Your task to perform on an android device: turn off improve location accuracy Image 0: 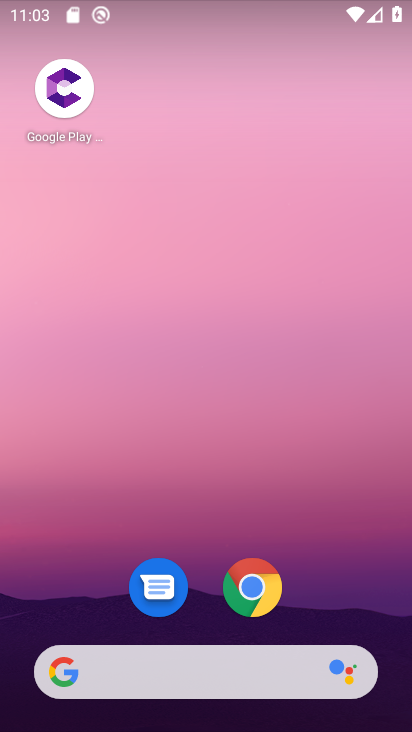
Step 0: drag from (209, 592) to (209, 177)
Your task to perform on an android device: turn off improve location accuracy Image 1: 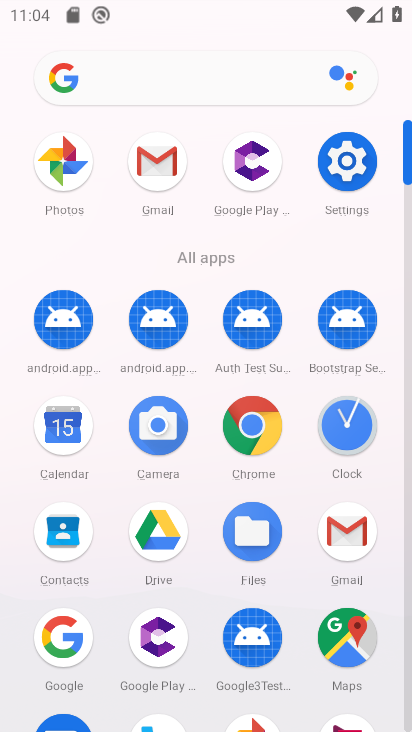
Step 1: click (339, 182)
Your task to perform on an android device: turn off improve location accuracy Image 2: 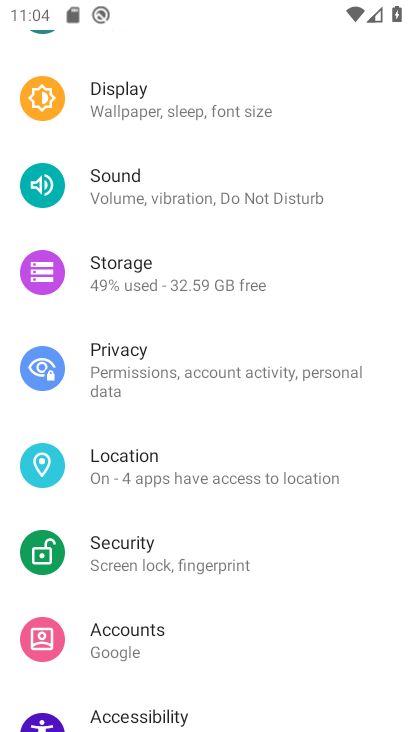
Step 2: drag from (188, 622) to (240, 333)
Your task to perform on an android device: turn off improve location accuracy Image 3: 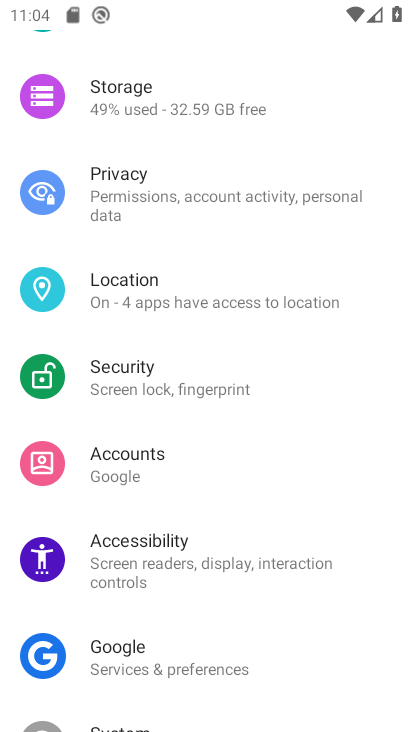
Step 3: drag from (209, 576) to (249, 293)
Your task to perform on an android device: turn off improve location accuracy Image 4: 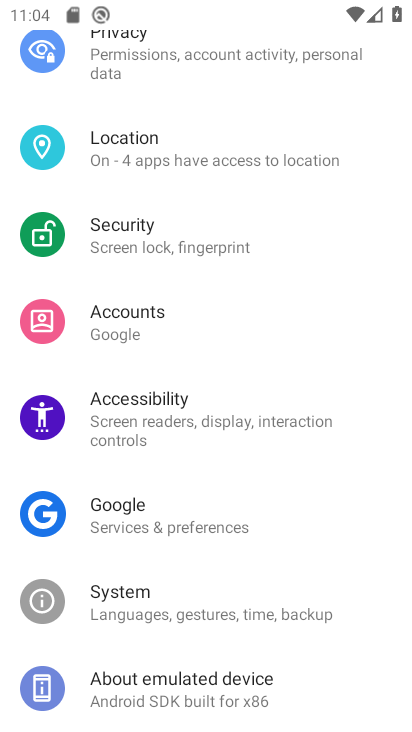
Step 4: drag from (212, 547) to (233, 247)
Your task to perform on an android device: turn off improve location accuracy Image 5: 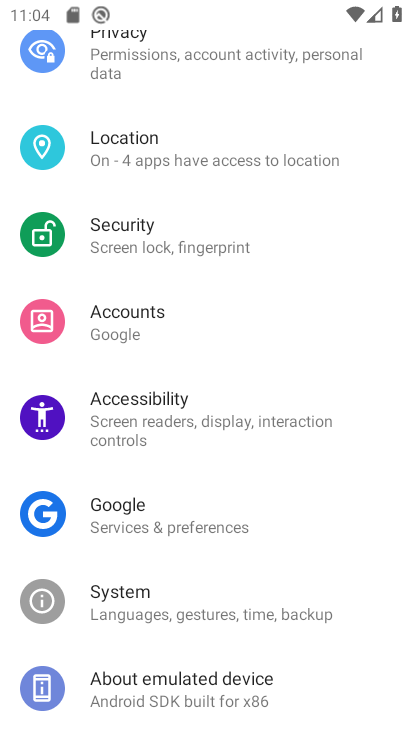
Step 5: click (171, 164)
Your task to perform on an android device: turn off improve location accuracy Image 6: 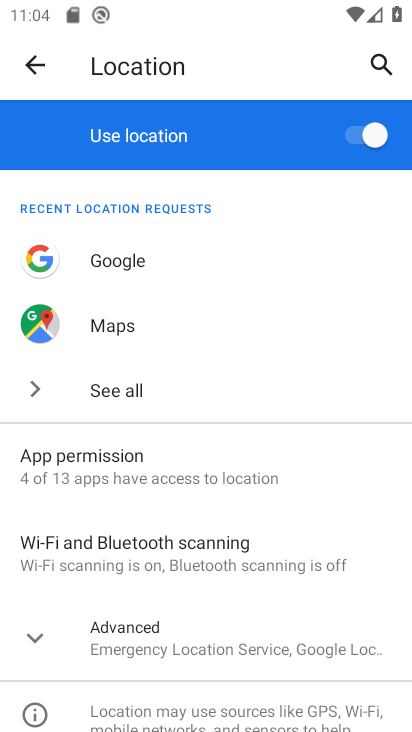
Step 6: drag from (241, 608) to (276, 373)
Your task to perform on an android device: turn off improve location accuracy Image 7: 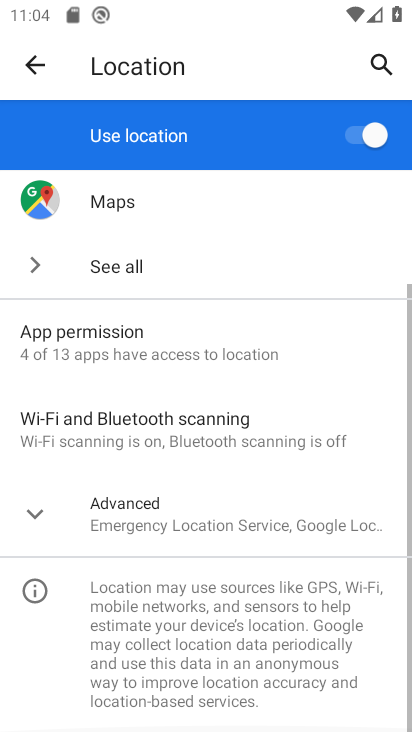
Step 7: drag from (211, 585) to (238, 416)
Your task to perform on an android device: turn off improve location accuracy Image 8: 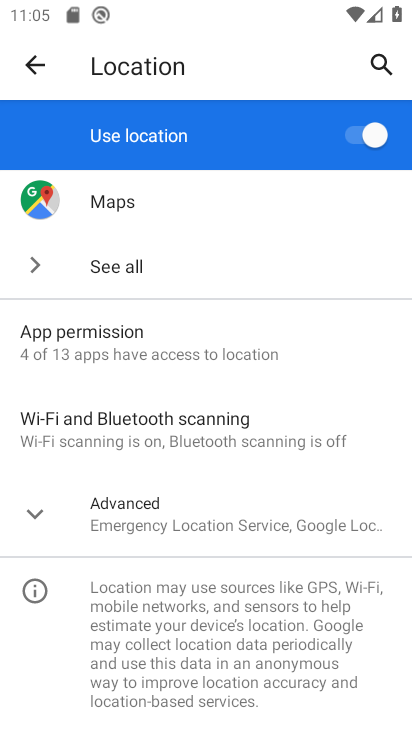
Step 8: click (177, 520)
Your task to perform on an android device: turn off improve location accuracy Image 9: 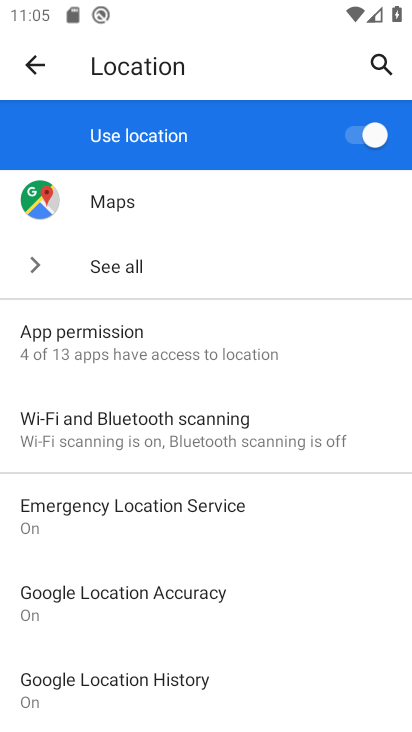
Step 9: drag from (204, 621) to (255, 381)
Your task to perform on an android device: turn off improve location accuracy Image 10: 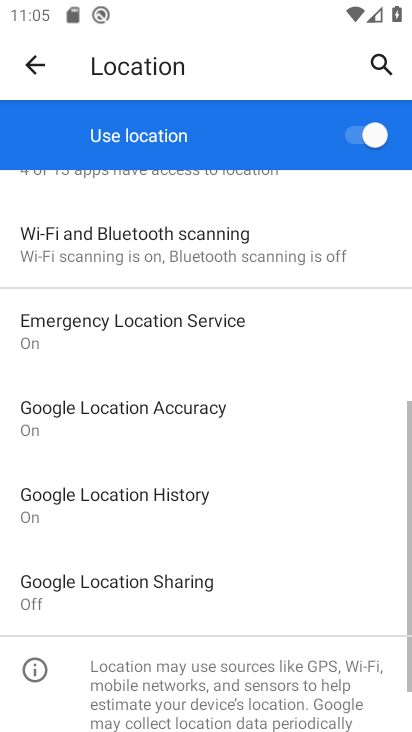
Step 10: drag from (234, 425) to (242, 383)
Your task to perform on an android device: turn off improve location accuracy Image 11: 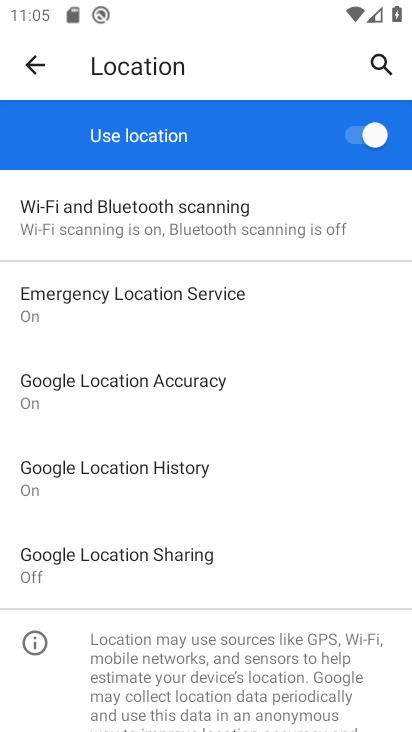
Step 11: click (187, 404)
Your task to perform on an android device: turn off improve location accuracy Image 12: 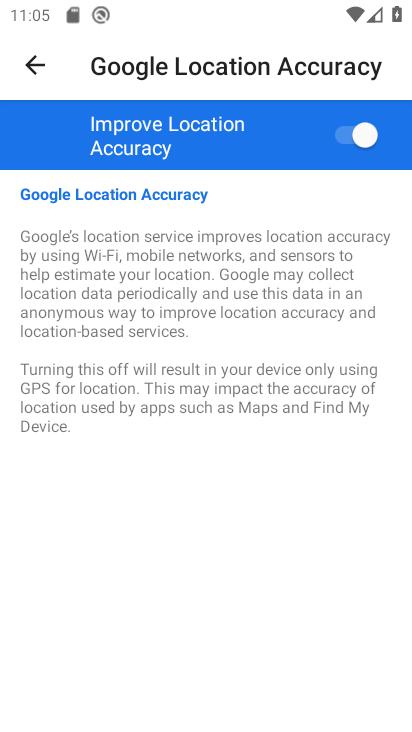
Step 12: click (339, 140)
Your task to perform on an android device: turn off improve location accuracy Image 13: 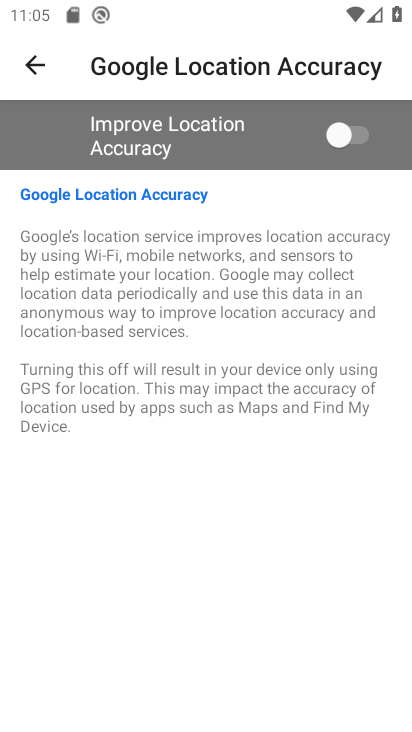
Step 13: task complete